Your task to perform on an android device: toggle sleep mode Image 0: 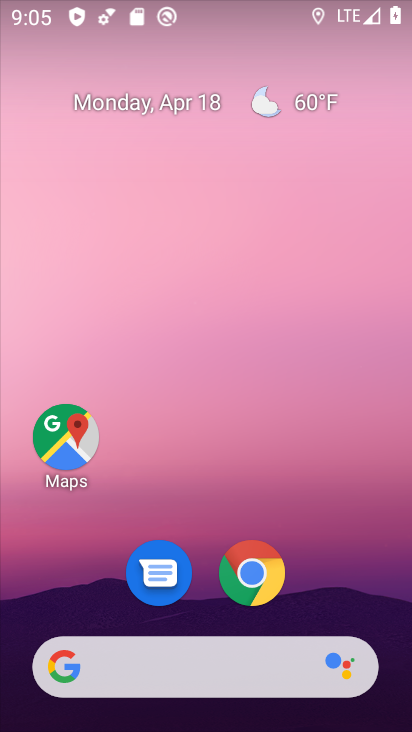
Step 0: drag from (364, 509) to (339, 32)
Your task to perform on an android device: toggle sleep mode Image 1: 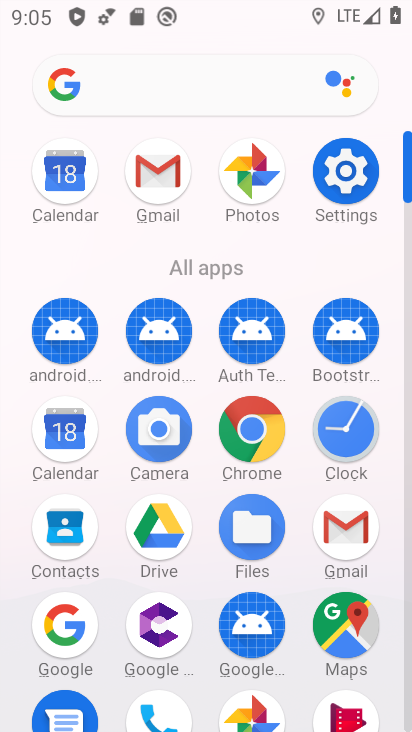
Step 1: click (351, 182)
Your task to perform on an android device: toggle sleep mode Image 2: 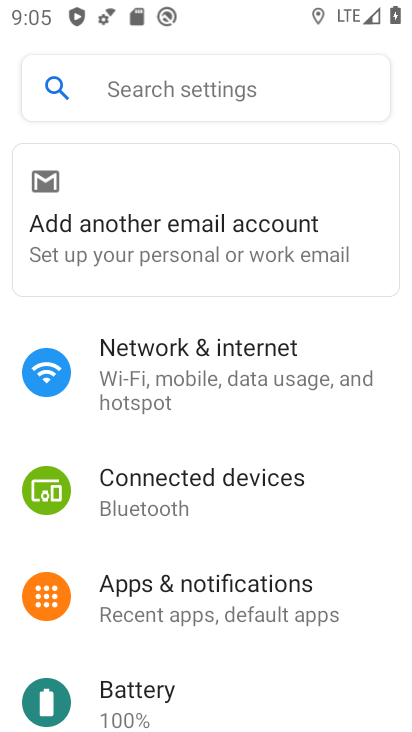
Step 2: drag from (231, 650) to (214, 213)
Your task to perform on an android device: toggle sleep mode Image 3: 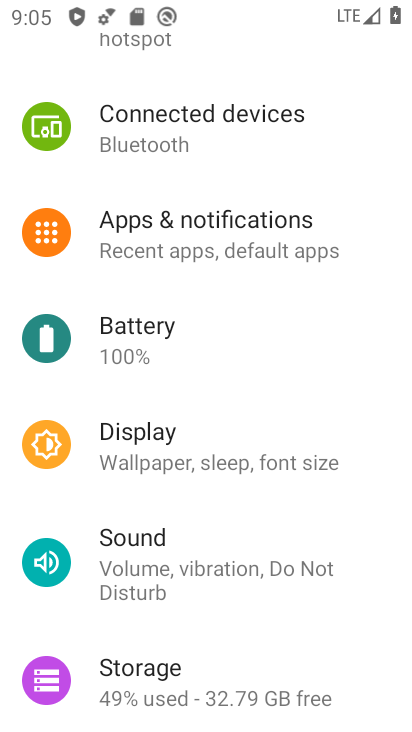
Step 3: click (165, 451)
Your task to perform on an android device: toggle sleep mode Image 4: 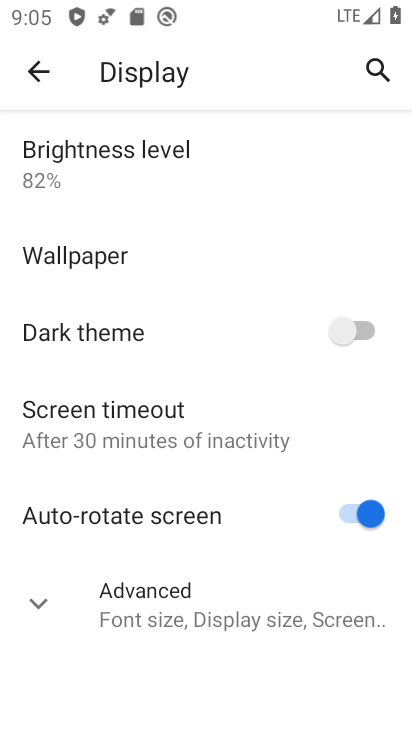
Step 4: click (152, 611)
Your task to perform on an android device: toggle sleep mode Image 5: 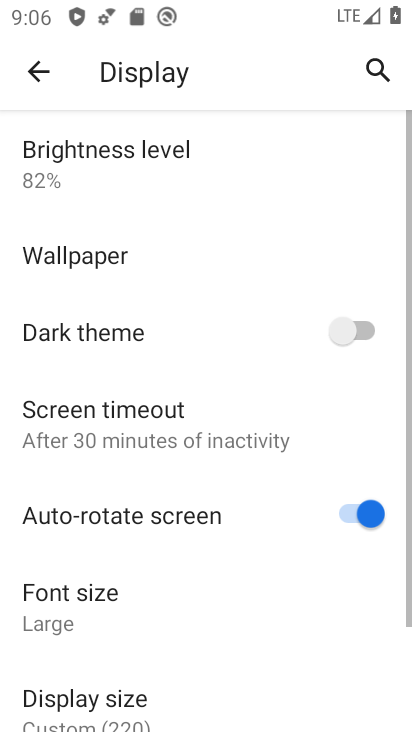
Step 5: task complete